Your task to perform on an android device: Is it going to rain this weekend? Image 0: 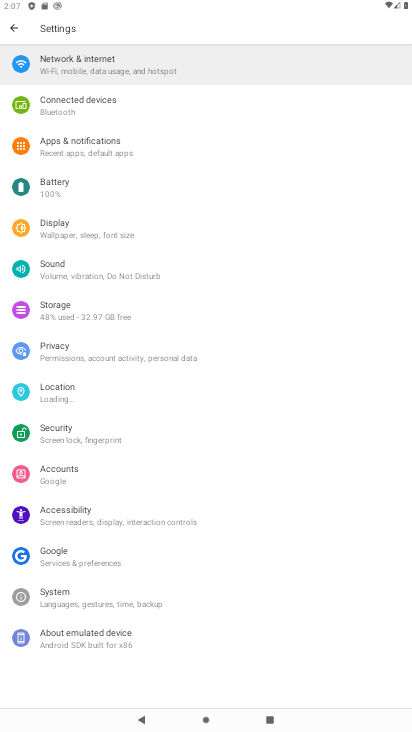
Step 0: press home button
Your task to perform on an android device: Is it going to rain this weekend? Image 1: 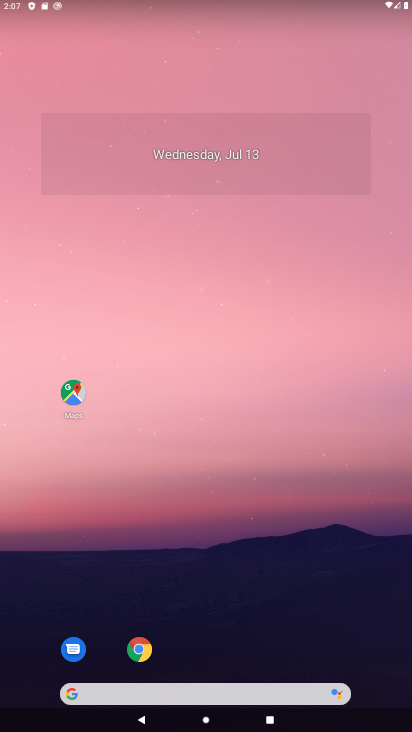
Step 1: click (169, 692)
Your task to perform on an android device: Is it going to rain this weekend? Image 2: 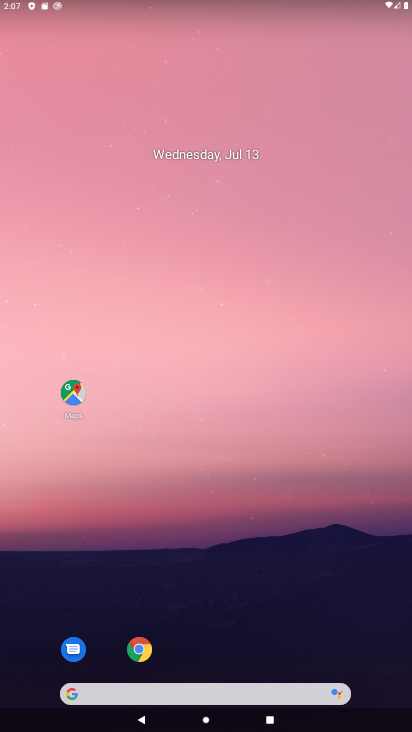
Step 2: click (176, 699)
Your task to perform on an android device: Is it going to rain this weekend? Image 3: 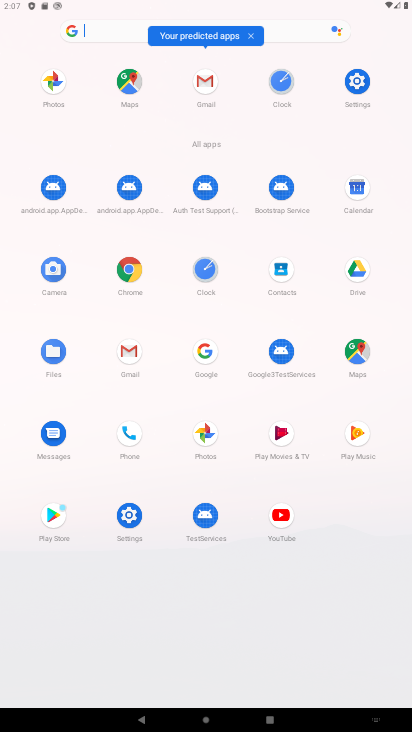
Step 3: click (198, 349)
Your task to perform on an android device: Is it going to rain this weekend? Image 4: 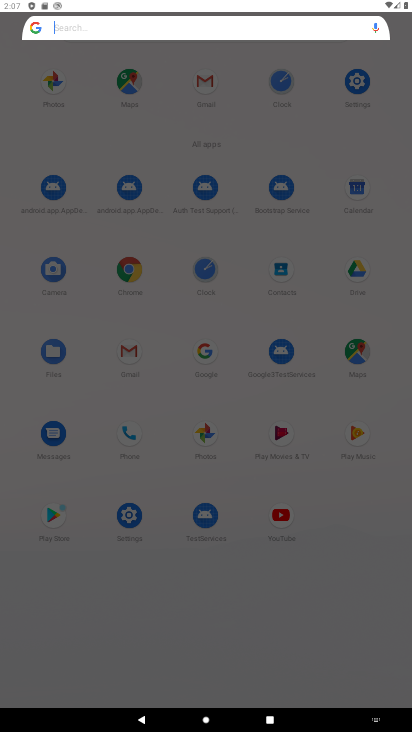
Step 4: click (202, 359)
Your task to perform on an android device: Is it going to rain this weekend? Image 5: 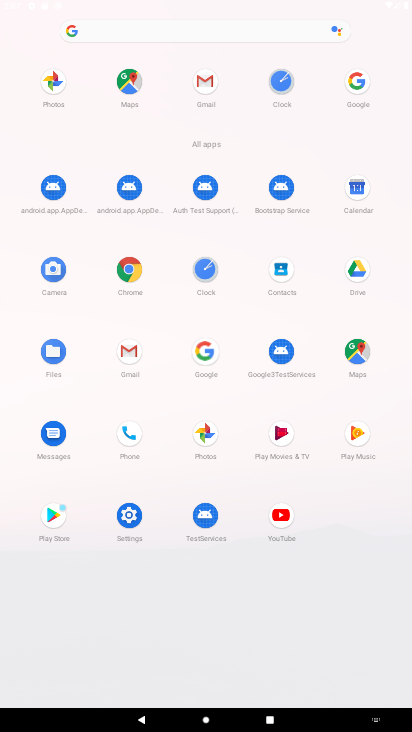
Step 5: click (197, 360)
Your task to perform on an android device: Is it going to rain this weekend? Image 6: 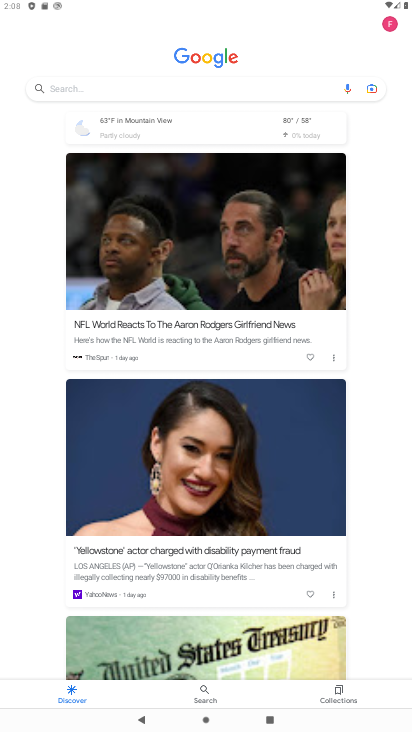
Step 6: type "Is "
Your task to perform on an android device: Is it going to rain this weekend? Image 7: 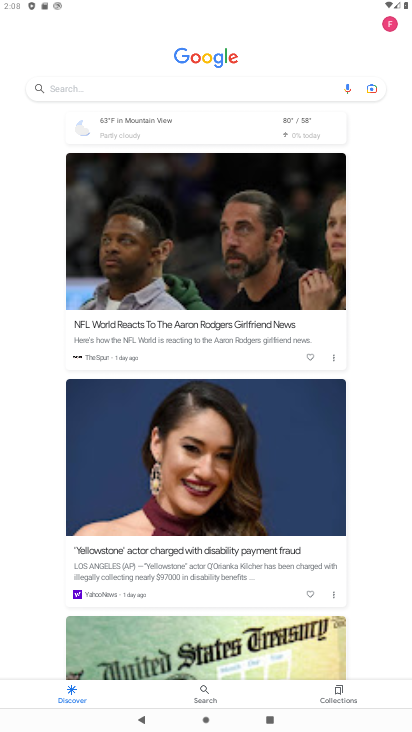
Step 7: click (153, 86)
Your task to perform on an android device: Is it going to rain this weekend? Image 8: 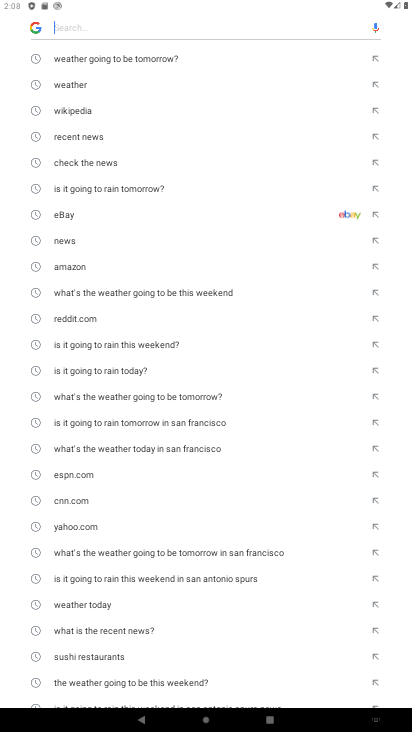
Step 8: type "Is it going to rain this weekend?"
Your task to perform on an android device: Is it going to rain this weekend? Image 9: 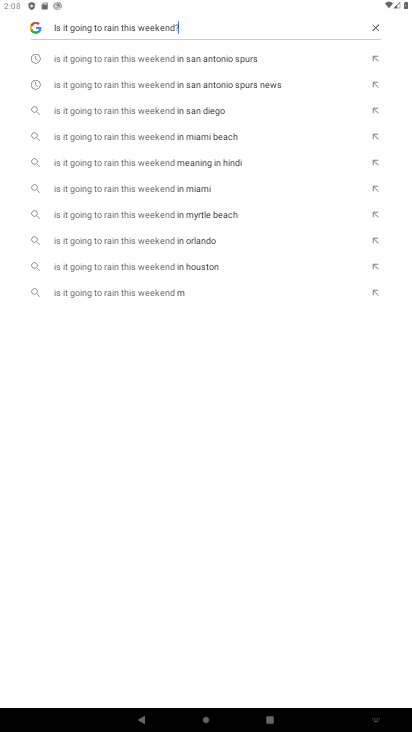
Step 9: press enter
Your task to perform on an android device: Is it going to rain this weekend? Image 10: 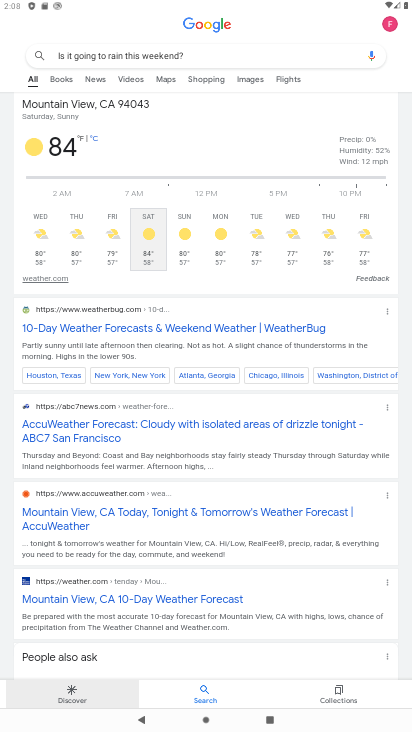
Step 10: task complete